Your task to perform on an android device: turn pop-ups off in chrome Image 0: 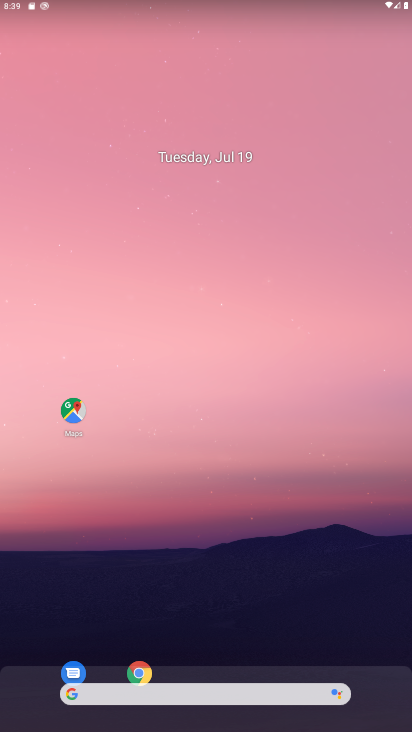
Step 0: click (143, 684)
Your task to perform on an android device: turn pop-ups off in chrome Image 1: 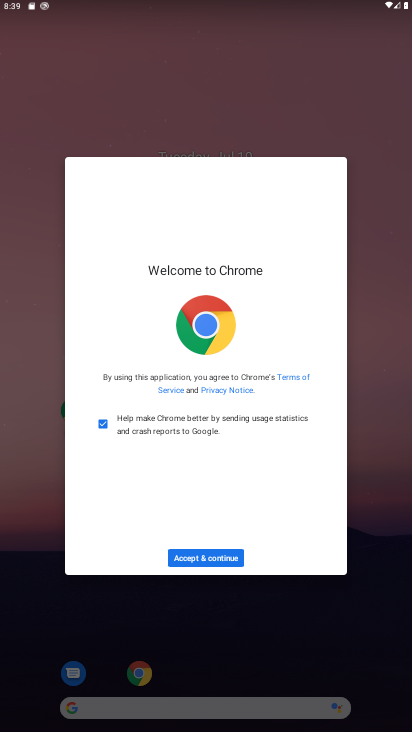
Step 1: click (234, 555)
Your task to perform on an android device: turn pop-ups off in chrome Image 2: 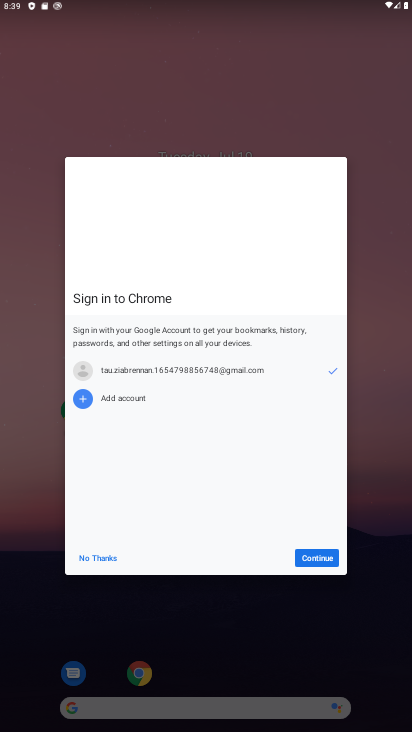
Step 2: click (305, 552)
Your task to perform on an android device: turn pop-ups off in chrome Image 3: 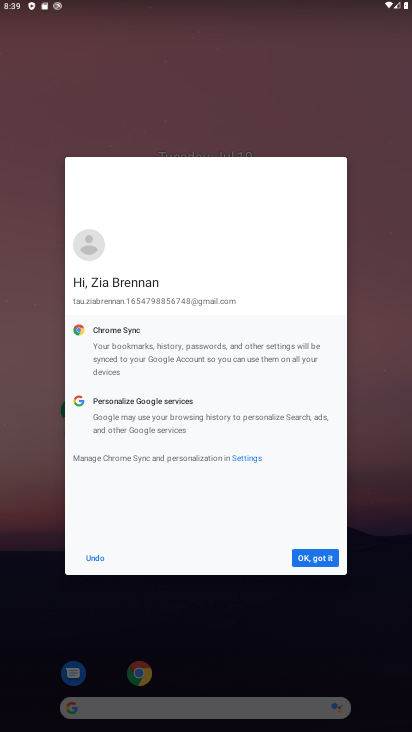
Step 3: click (323, 562)
Your task to perform on an android device: turn pop-ups off in chrome Image 4: 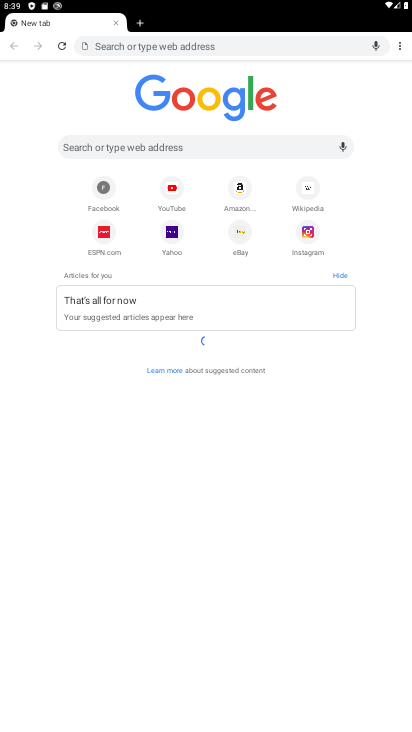
Step 4: drag from (403, 40) to (354, 208)
Your task to perform on an android device: turn pop-ups off in chrome Image 5: 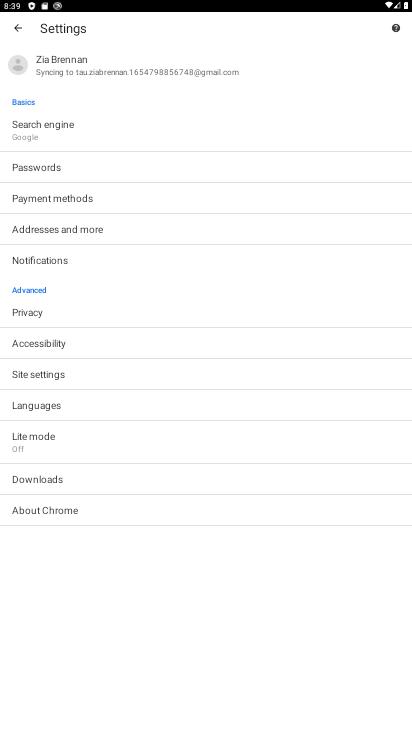
Step 5: click (89, 372)
Your task to perform on an android device: turn pop-ups off in chrome Image 6: 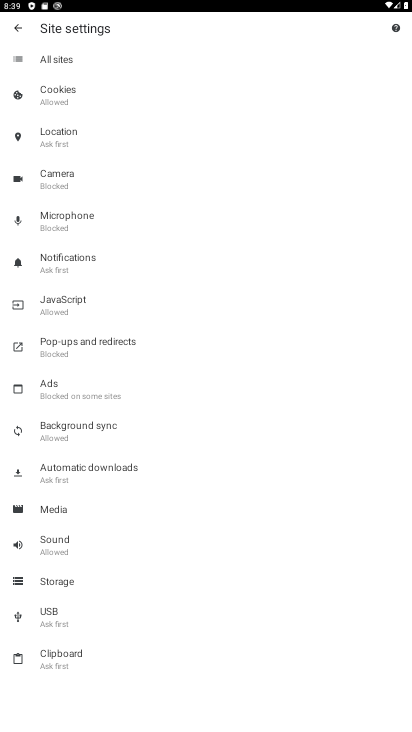
Step 6: click (96, 351)
Your task to perform on an android device: turn pop-ups off in chrome Image 7: 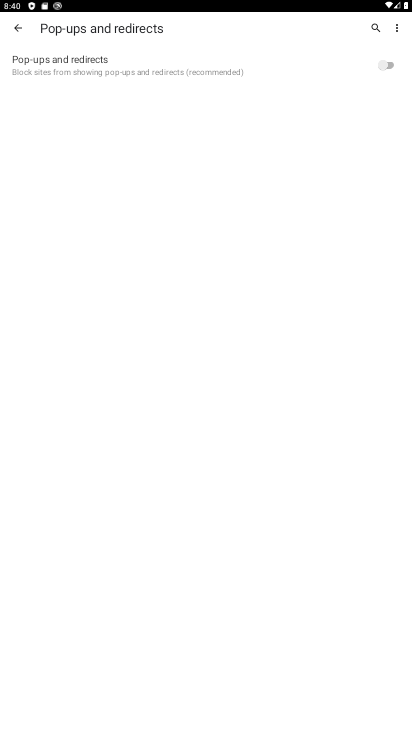
Step 7: task complete